Your task to perform on an android device: turn on sleep mode Image 0: 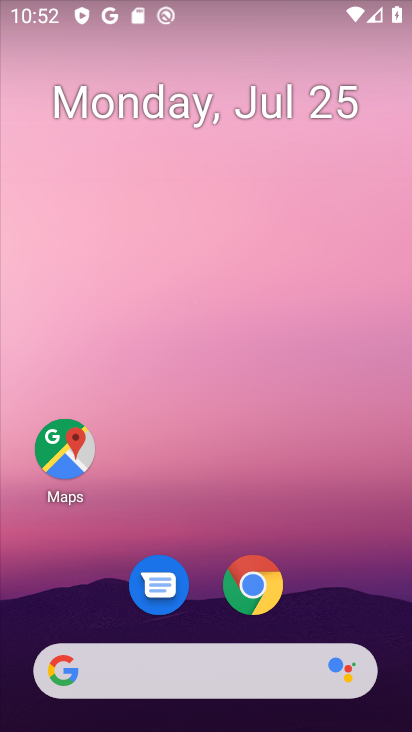
Step 0: drag from (323, 546) to (316, 10)
Your task to perform on an android device: turn on sleep mode Image 1: 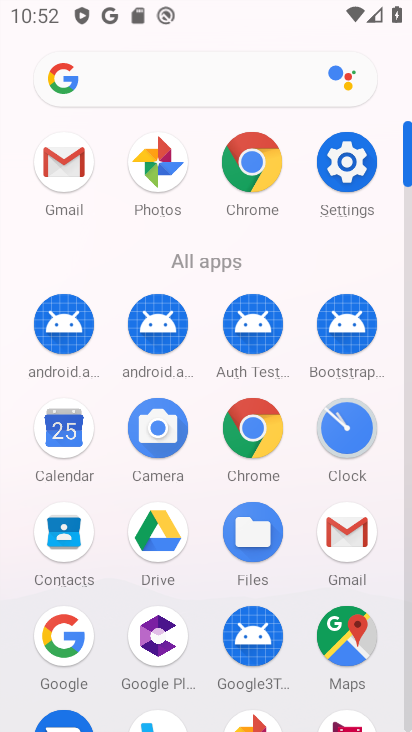
Step 1: click (339, 164)
Your task to perform on an android device: turn on sleep mode Image 2: 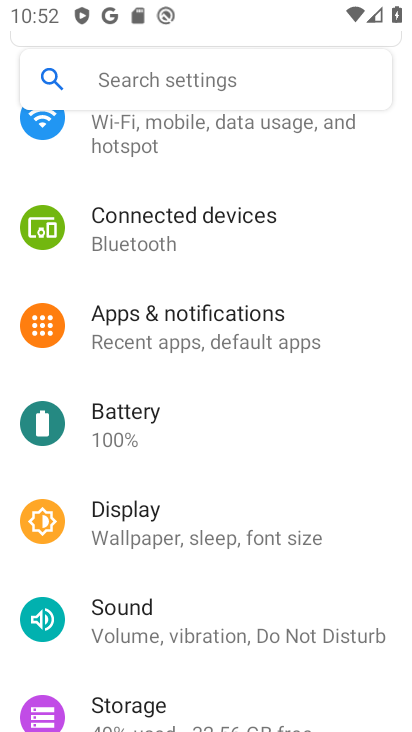
Step 2: click (183, 511)
Your task to perform on an android device: turn on sleep mode Image 3: 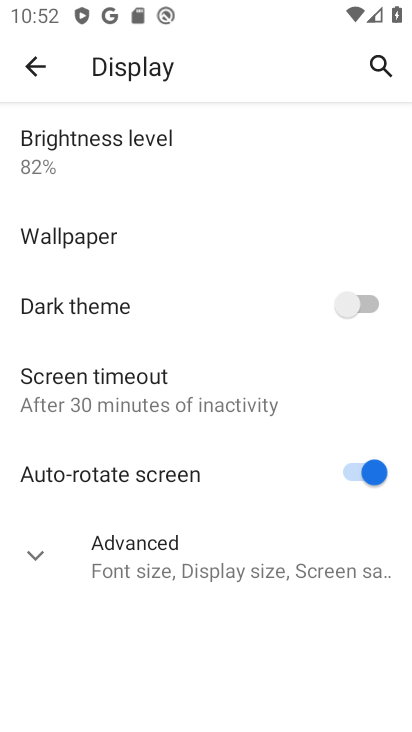
Step 3: click (35, 548)
Your task to perform on an android device: turn on sleep mode Image 4: 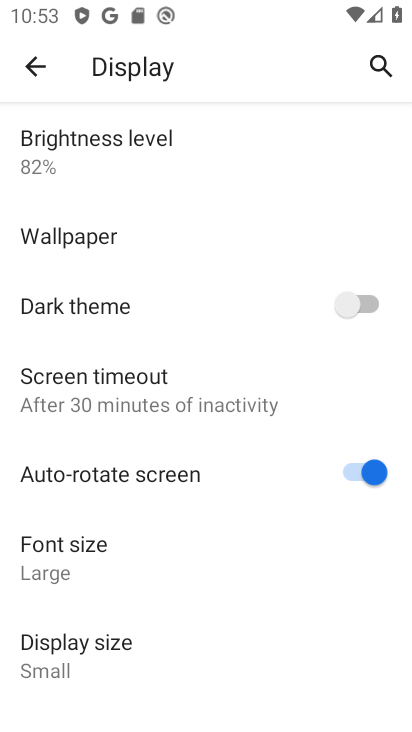
Step 4: task complete